Your task to perform on an android device: open chrome and create a bookmark for the current page Image 0: 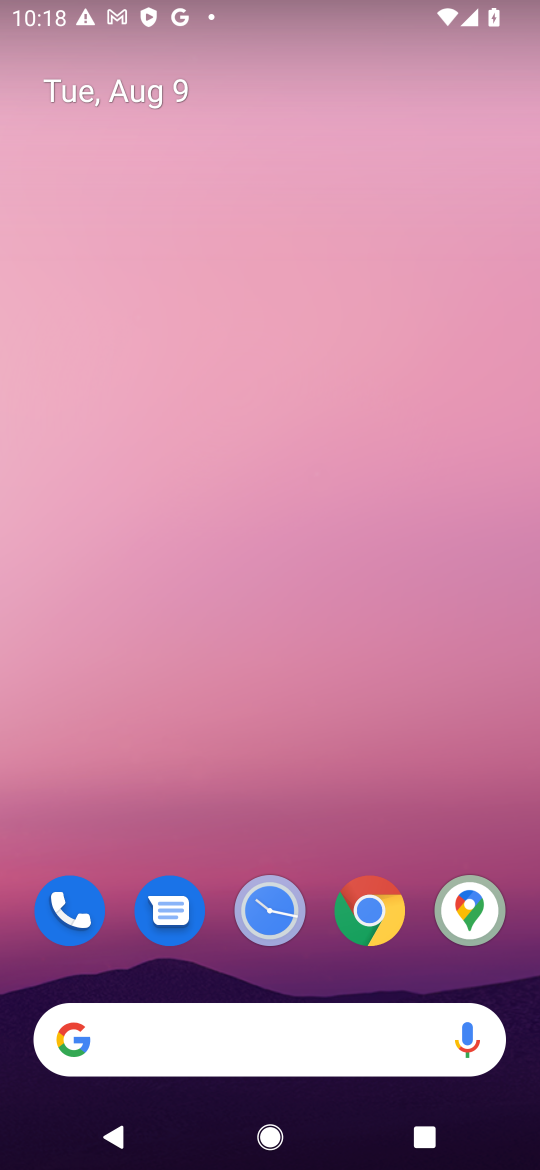
Step 0: click (381, 907)
Your task to perform on an android device: open chrome and create a bookmark for the current page Image 1: 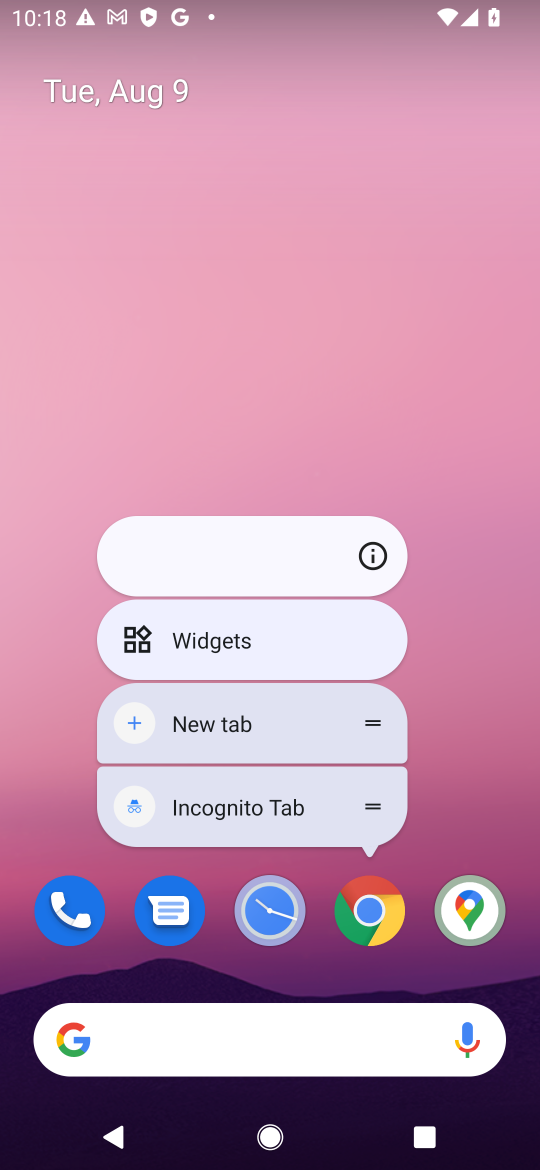
Step 1: click (360, 920)
Your task to perform on an android device: open chrome and create a bookmark for the current page Image 2: 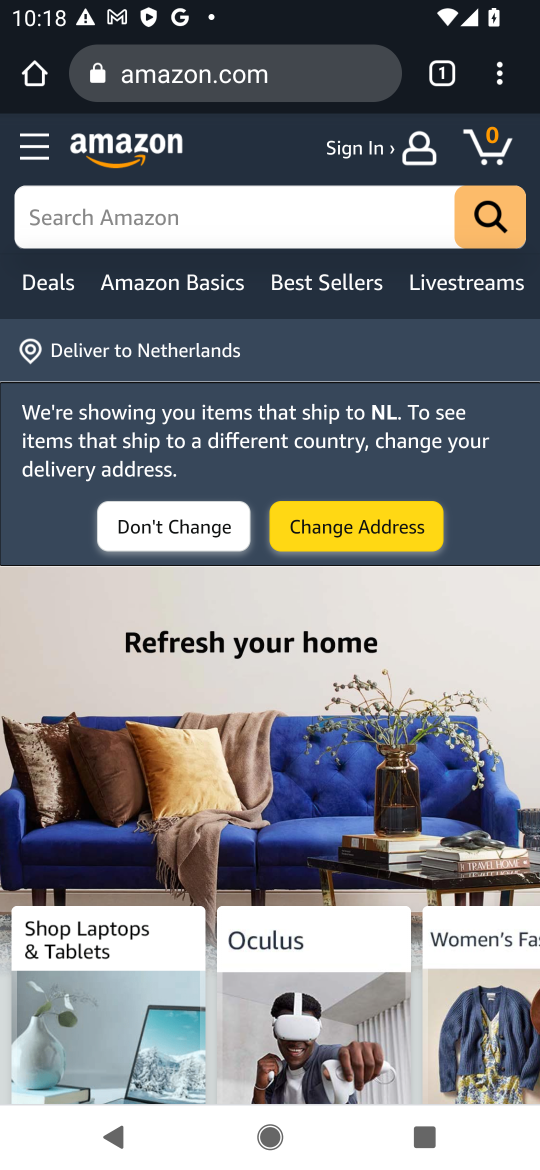
Step 2: click (495, 81)
Your task to perform on an android device: open chrome and create a bookmark for the current page Image 3: 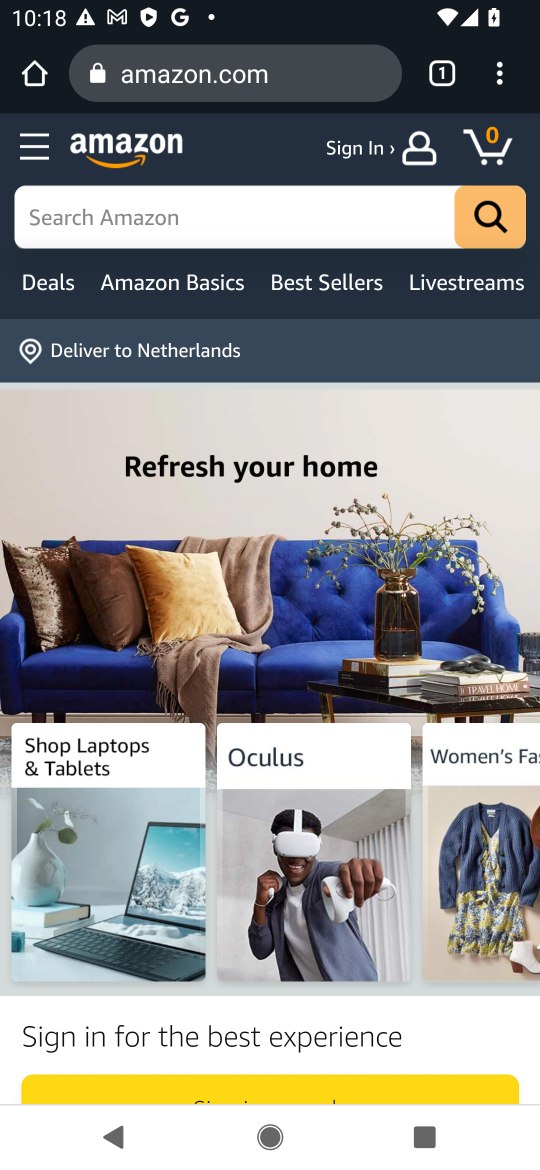
Step 3: click (441, 73)
Your task to perform on an android device: open chrome and create a bookmark for the current page Image 4: 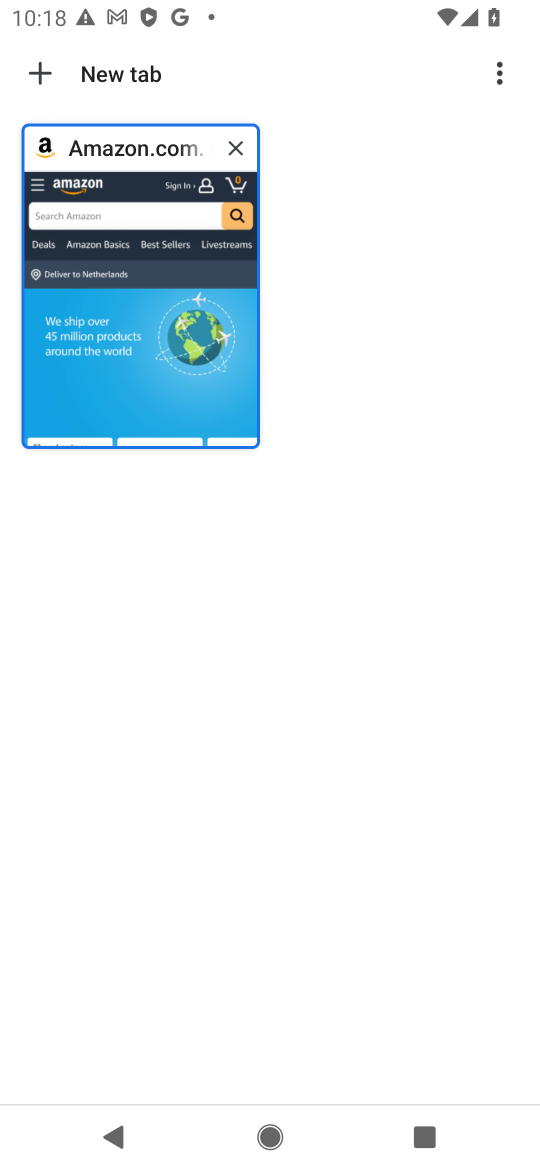
Step 4: click (109, 276)
Your task to perform on an android device: open chrome and create a bookmark for the current page Image 5: 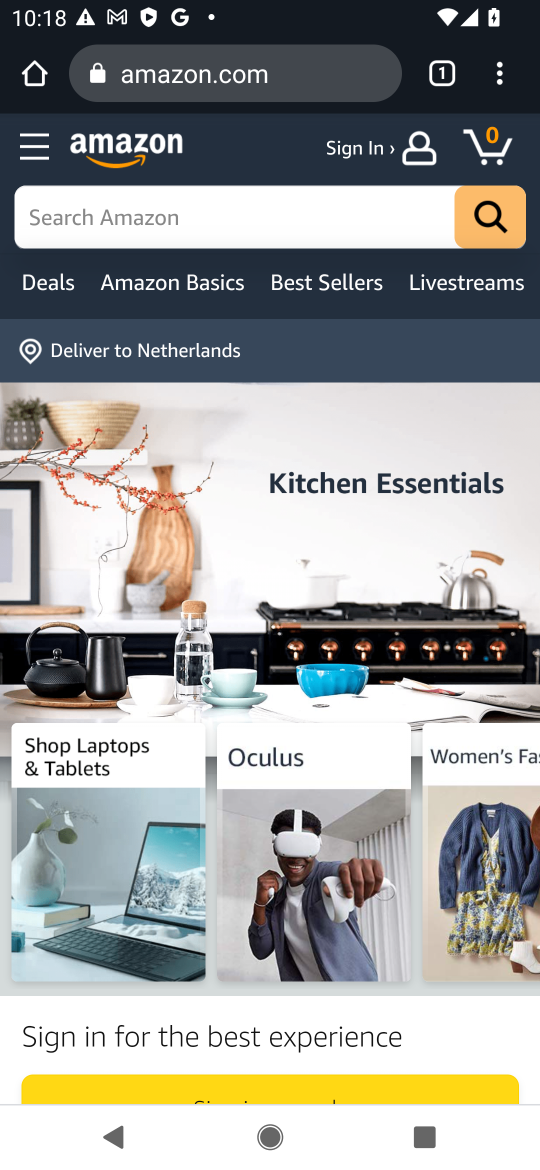
Step 5: click (488, 78)
Your task to perform on an android device: open chrome and create a bookmark for the current page Image 6: 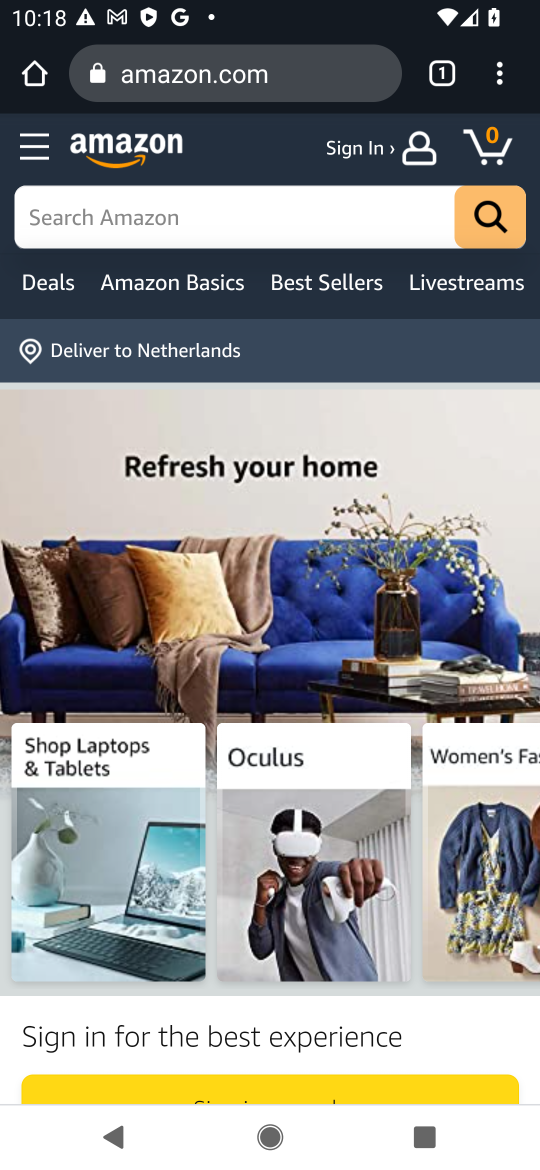
Step 6: click (499, 79)
Your task to perform on an android device: open chrome and create a bookmark for the current page Image 7: 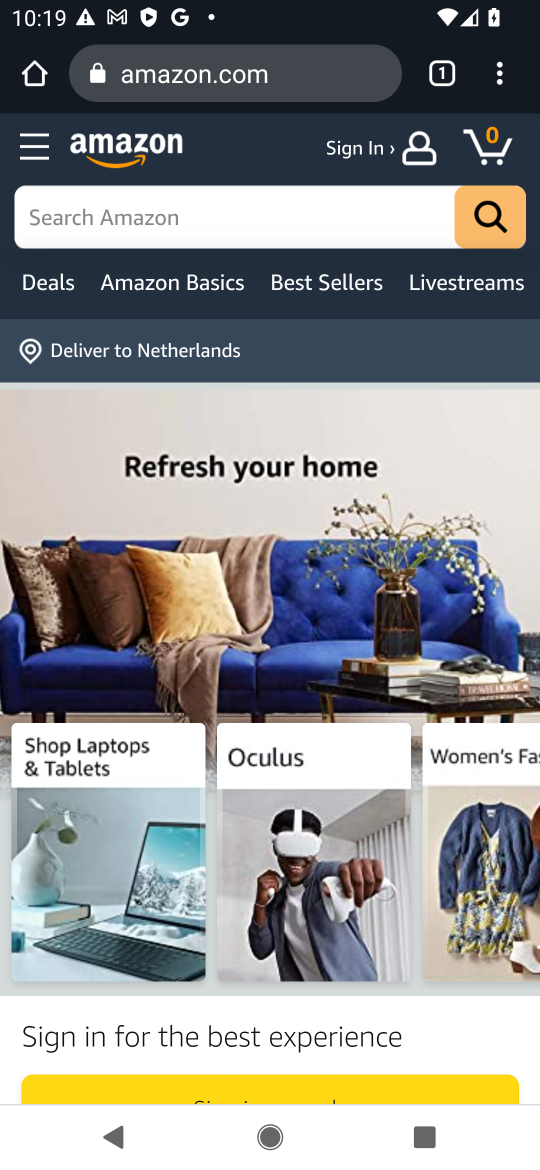
Step 7: click (504, 79)
Your task to perform on an android device: open chrome and create a bookmark for the current page Image 8: 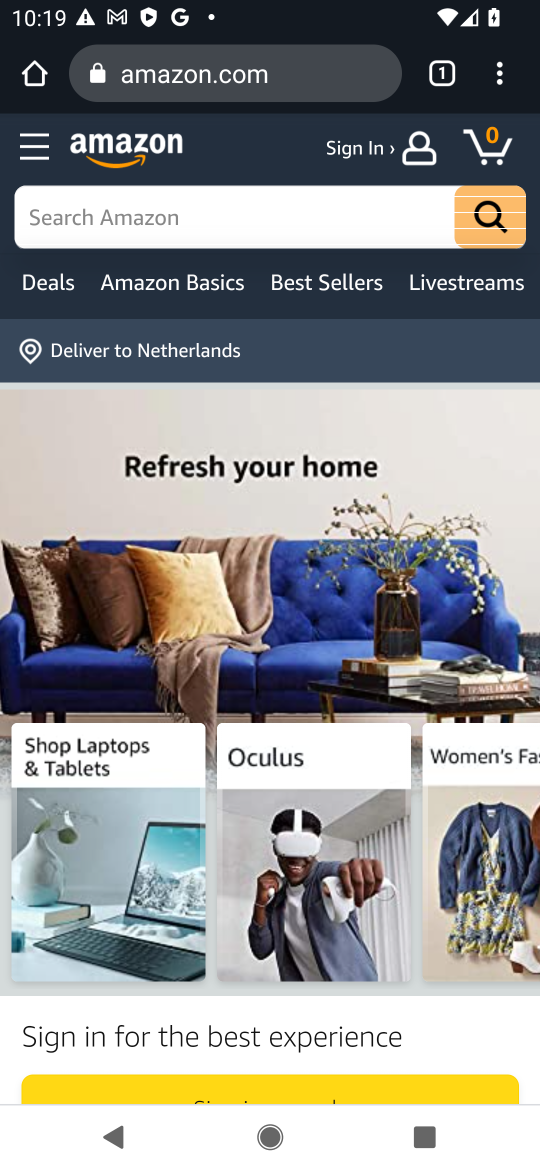
Step 8: task complete